Your task to perform on an android device: Open Android settings Image 0: 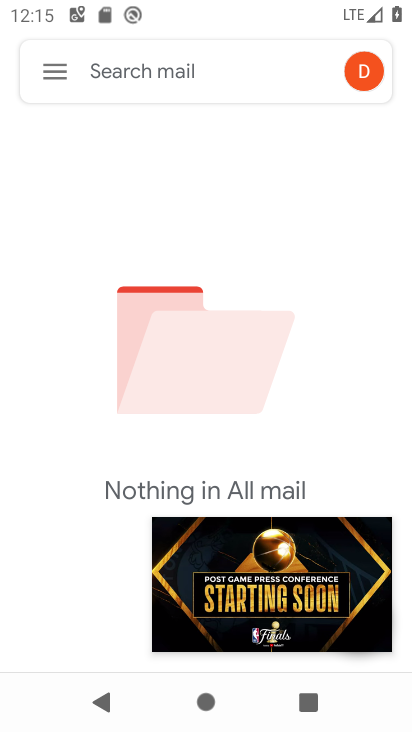
Step 0: press home button
Your task to perform on an android device: Open Android settings Image 1: 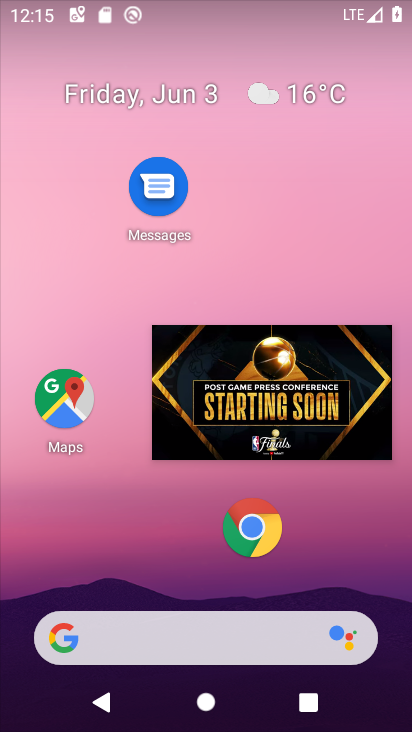
Step 1: click (356, 383)
Your task to perform on an android device: Open Android settings Image 2: 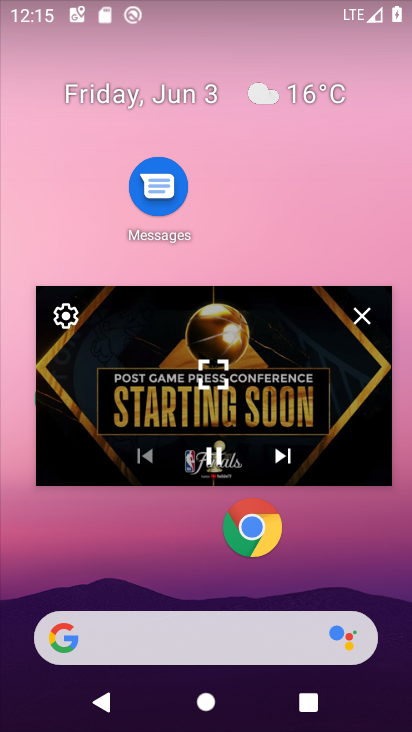
Step 2: click (361, 316)
Your task to perform on an android device: Open Android settings Image 3: 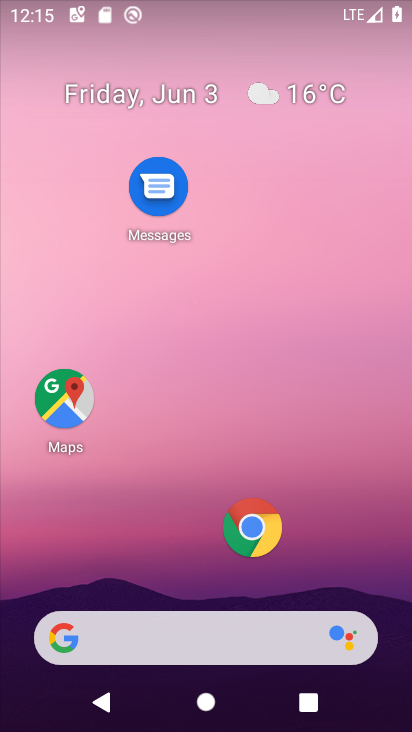
Step 3: drag from (305, 591) to (313, 149)
Your task to perform on an android device: Open Android settings Image 4: 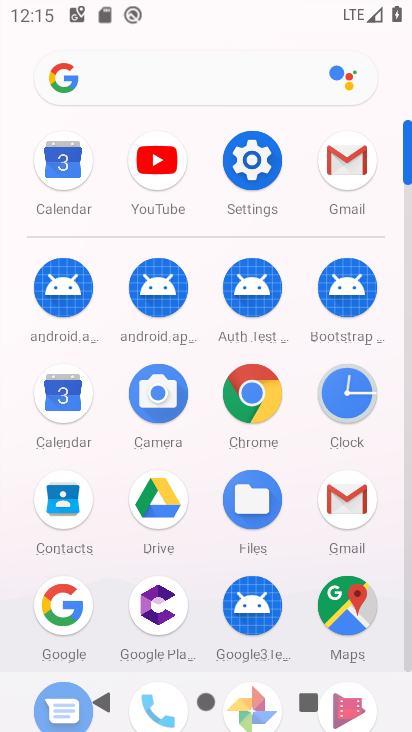
Step 4: click (249, 150)
Your task to perform on an android device: Open Android settings Image 5: 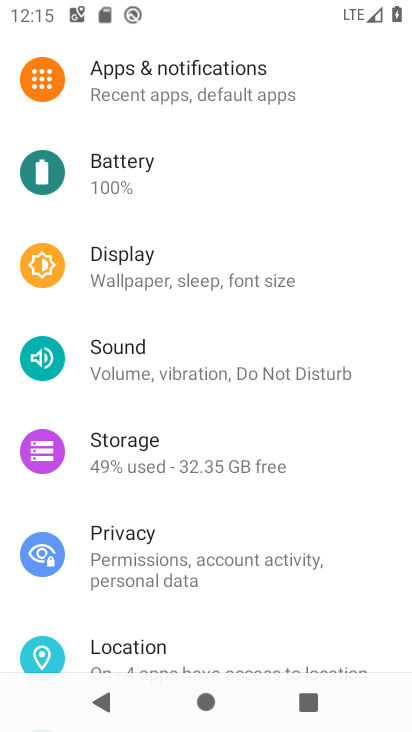
Step 5: drag from (204, 517) to (204, 146)
Your task to perform on an android device: Open Android settings Image 6: 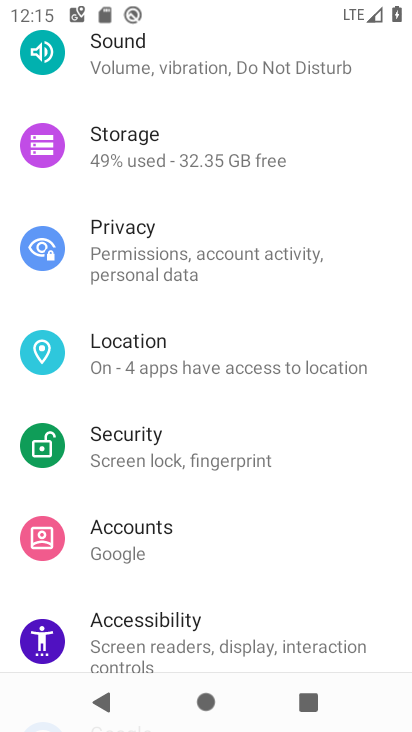
Step 6: drag from (232, 629) to (239, 148)
Your task to perform on an android device: Open Android settings Image 7: 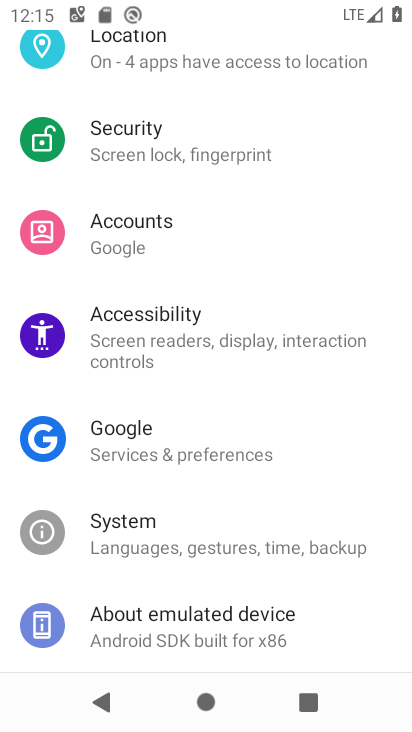
Step 7: click (307, 623)
Your task to perform on an android device: Open Android settings Image 8: 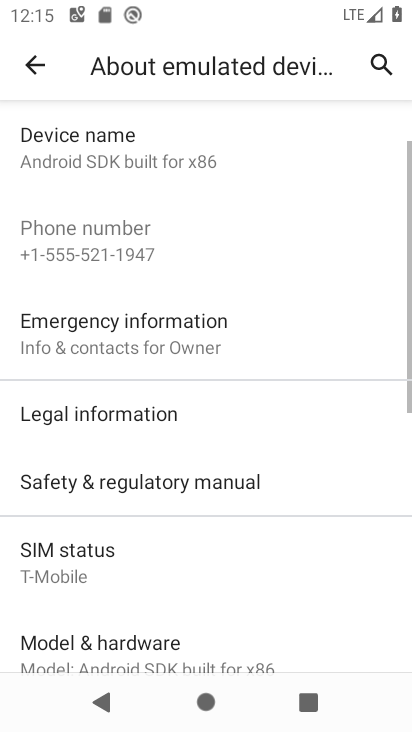
Step 8: drag from (185, 599) to (228, 311)
Your task to perform on an android device: Open Android settings Image 9: 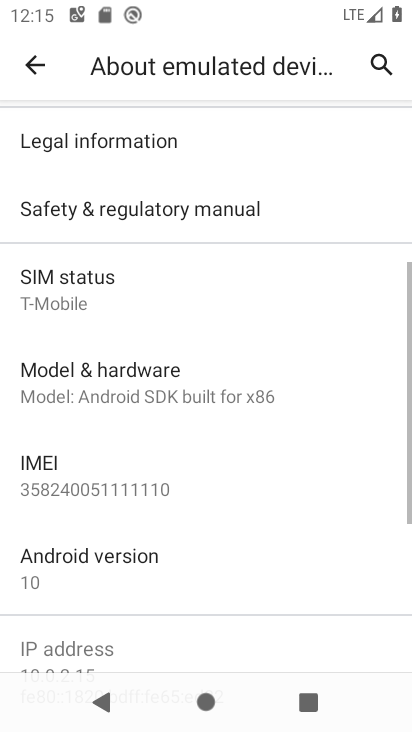
Step 9: click (111, 574)
Your task to perform on an android device: Open Android settings Image 10: 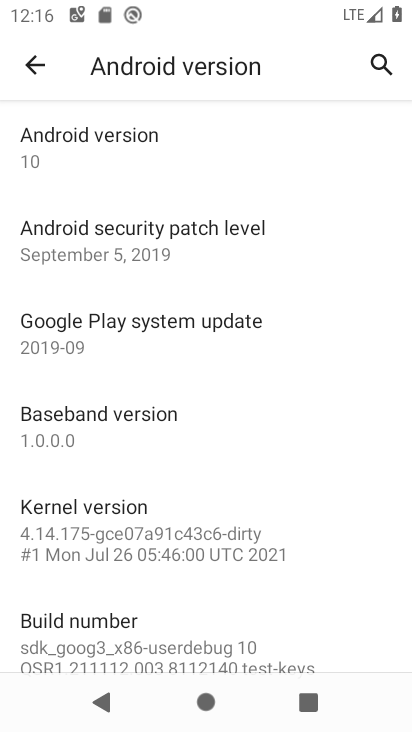
Step 10: task complete